Your task to perform on an android device: toggle priority inbox in the gmail app Image 0: 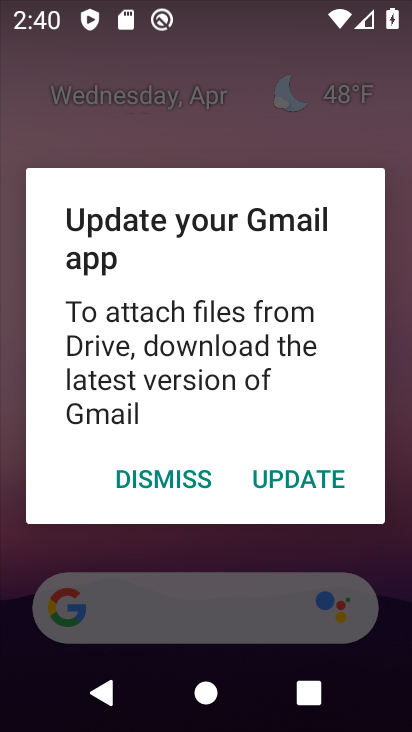
Step 0: press home button
Your task to perform on an android device: toggle priority inbox in the gmail app Image 1: 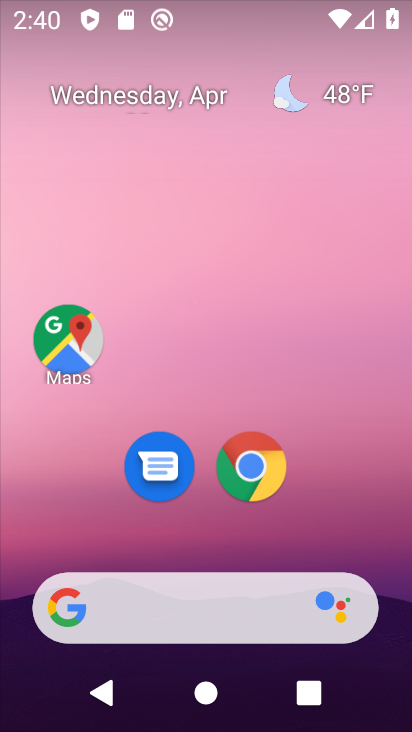
Step 1: drag from (348, 515) to (265, 43)
Your task to perform on an android device: toggle priority inbox in the gmail app Image 2: 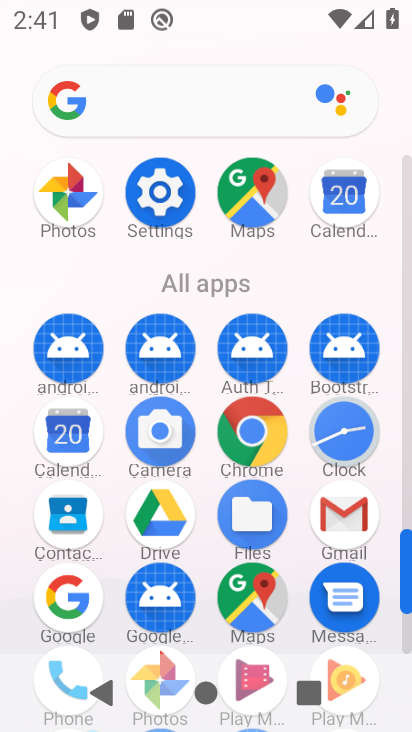
Step 2: click (341, 520)
Your task to perform on an android device: toggle priority inbox in the gmail app Image 3: 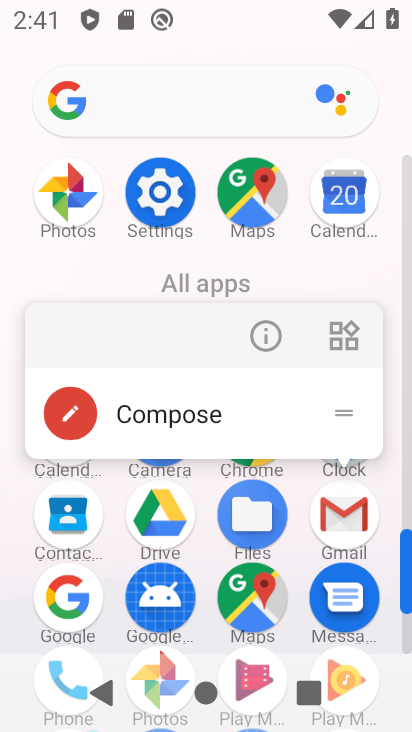
Step 3: click (341, 520)
Your task to perform on an android device: toggle priority inbox in the gmail app Image 4: 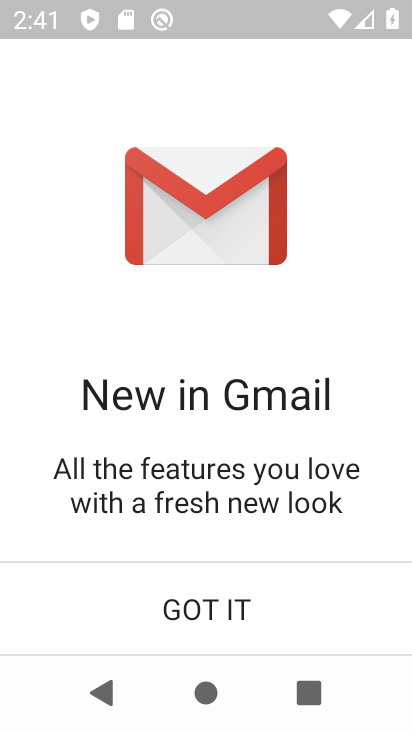
Step 4: click (293, 588)
Your task to perform on an android device: toggle priority inbox in the gmail app Image 5: 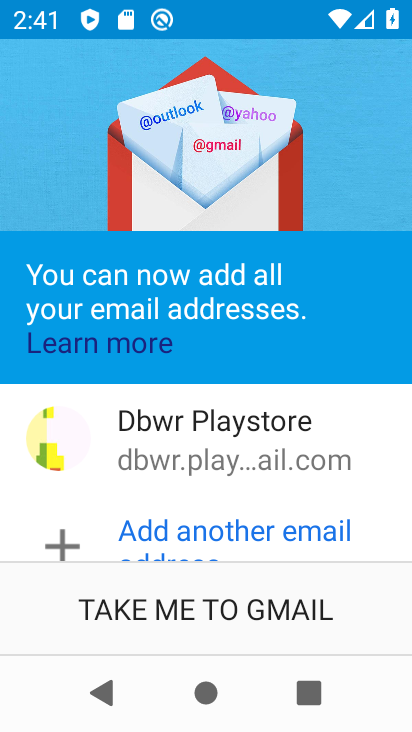
Step 5: click (293, 588)
Your task to perform on an android device: toggle priority inbox in the gmail app Image 6: 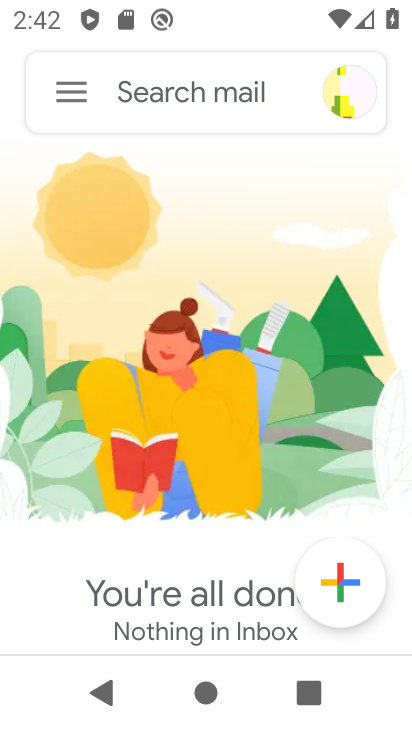
Step 6: click (77, 97)
Your task to perform on an android device: toggle priority inbox in the gmail app Image 7: 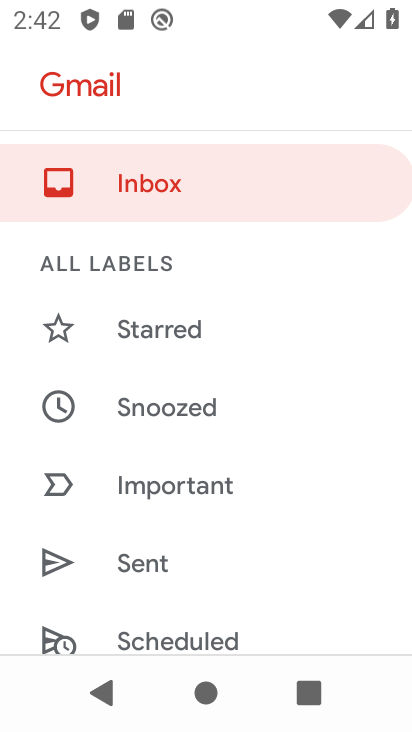
Step 7: drag from (286, 551) to (273, 186)
Your task to perform on an android device: toggle priority inbox in the gmail app Image 8: 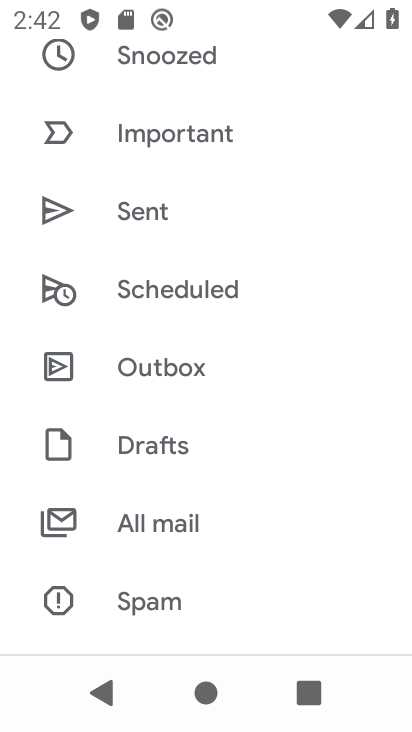
Step 8: drag from (238, 568) to (228, 222)
Your task to perform on an android device: toggle priority inbox in the gmail app Image 9: 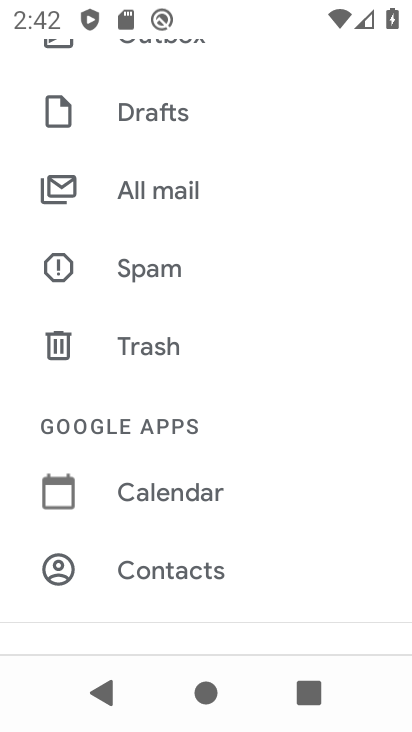
Step 9: drag from (249, 386) to (225, 125)
Your task to perform on an android device: toggle priority inbox in the gmail app Image 10: 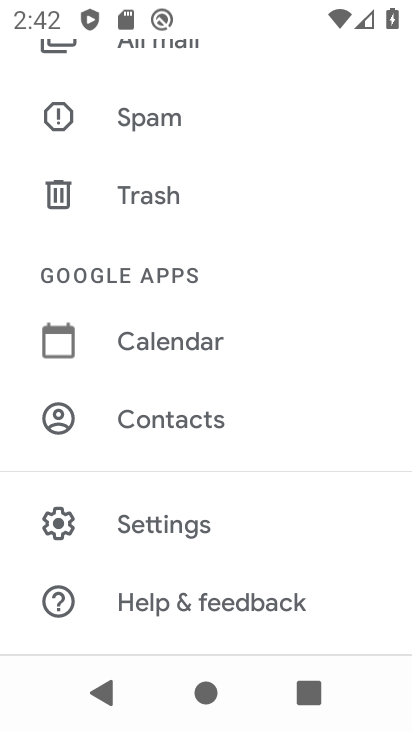
Step 10: click (186, 521)
Your task to perform on an android device: toggle priority inbox in the gmail app Image 11: 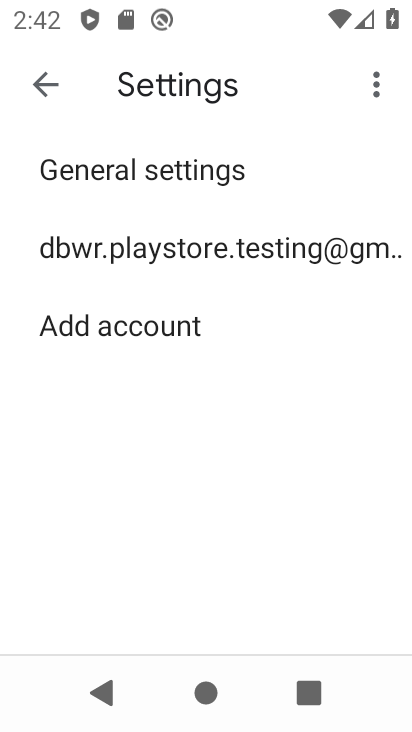
Step 11: click (269, 241)
Your task to perform on an android device: toggle priority inbox in the gmail app Image 12: 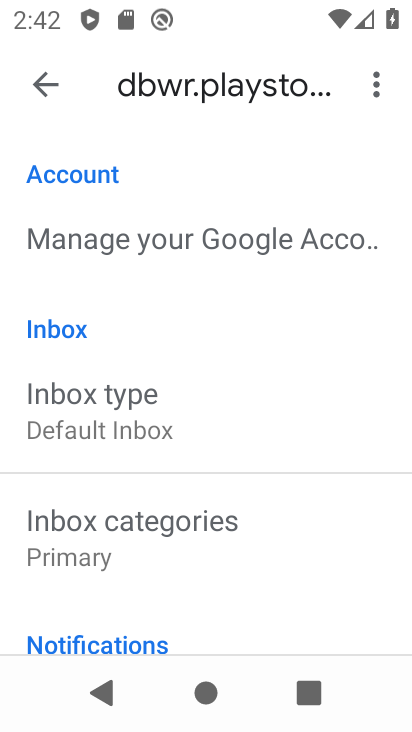
Step 12: click (151, 422)
Your task to perform on an android device: toggle priority inbox in the gmail app Image 13: 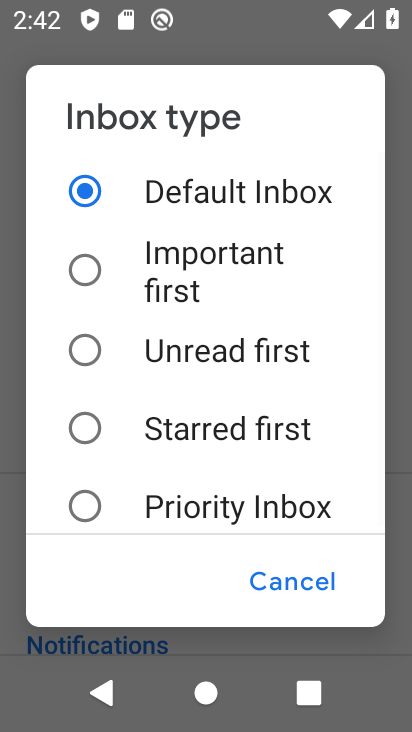
Step 13: click (82, 496)
Your task to perform on an android device: toggle priority inbox in the gmail app Image 14: 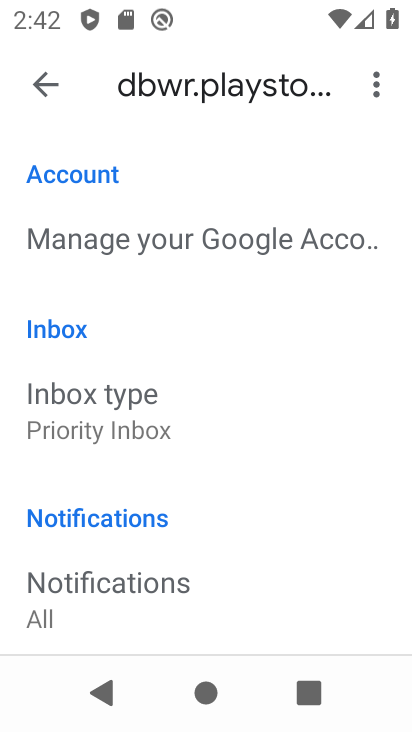
Step 14: task complete